Your task to perform on an android device: turn off notifications settings in the gmail app Image 0: 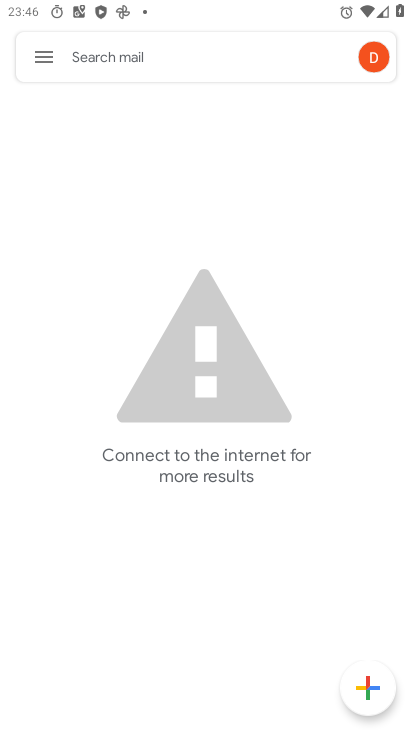
Step 0: press home button
Your task to perform on an android device: turn off notifications settings in the gmail app Image 1: 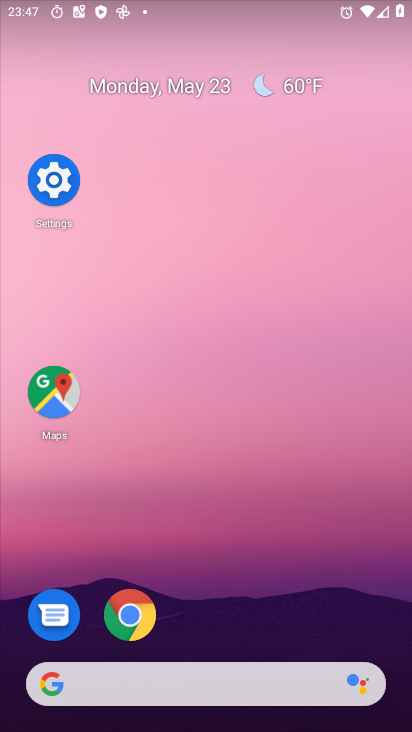
Step 1: drag from (228, 582) to (238, 95)
Your task to perform on an android device: turn off notifications settings in the gmail app Image 2: 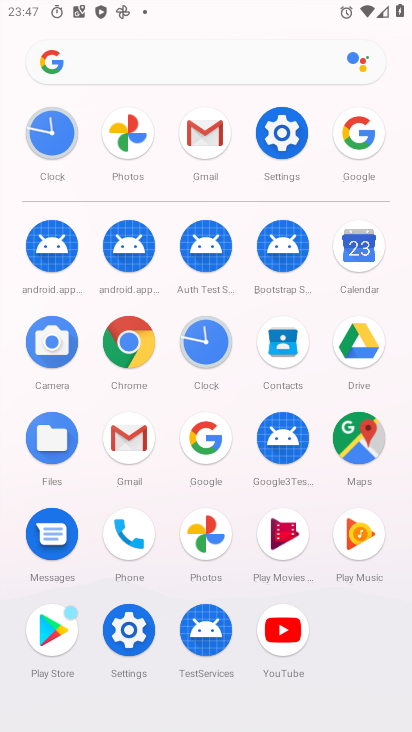
Step 2: click (206, 116)
Your task to perform on an android device: turn off notifications settings in the gmail app Image 3: 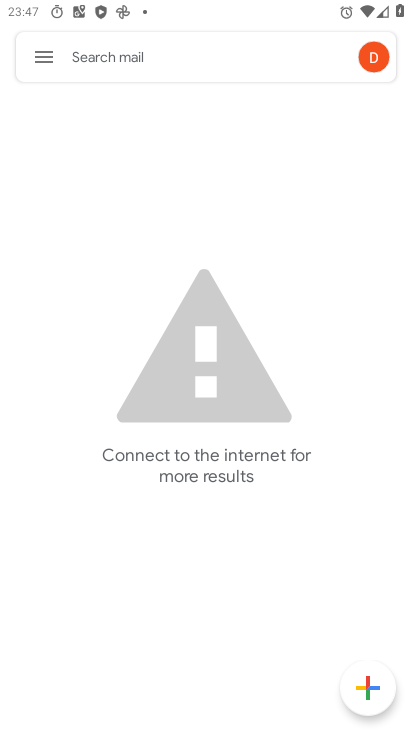
Step 3: click (37, 63)
Your task to perform on an android device: turn off notifications settings in the gmail app Image 4: 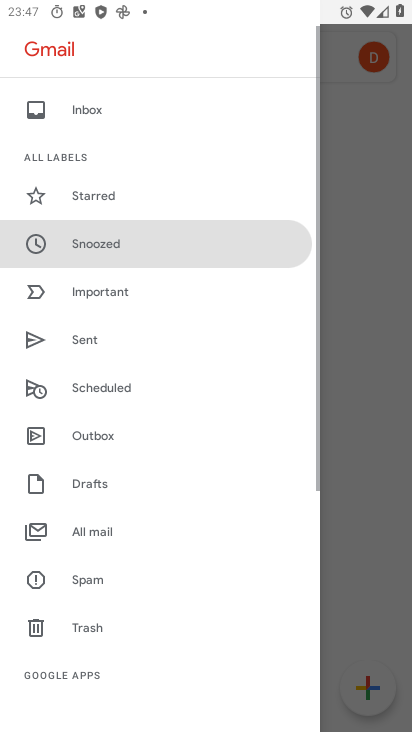
Step 4: drag from (116, 678) to (164, 115)
Your task to perform on an android device: turn off notifications settings in the gmail app Image 5: 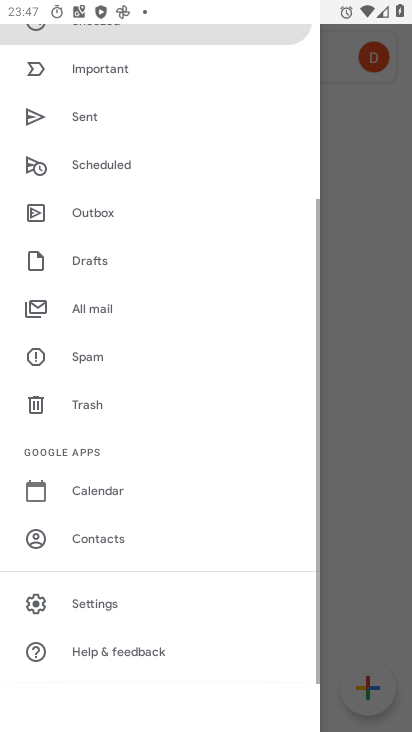
Step 5: click (129, 592)
Your task to perform on an android device: turn off notifications settings in the gmail app Image 6: 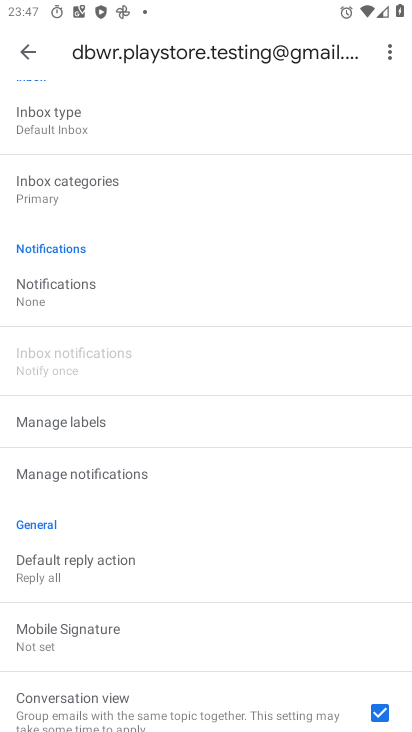
Step 6: click (88, 315)
Your task to perform on an android device: turn off notifications settings in the gmail app Image 7: 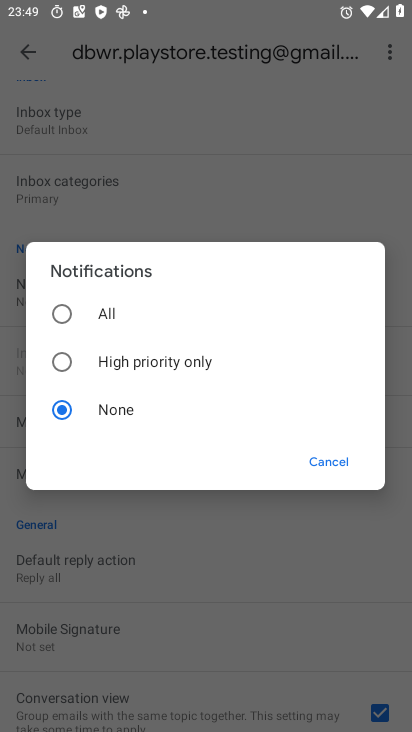
Step 7: task complete